Your task to perform on an android device: remove spam from my inbox in the gmail app Image 0: 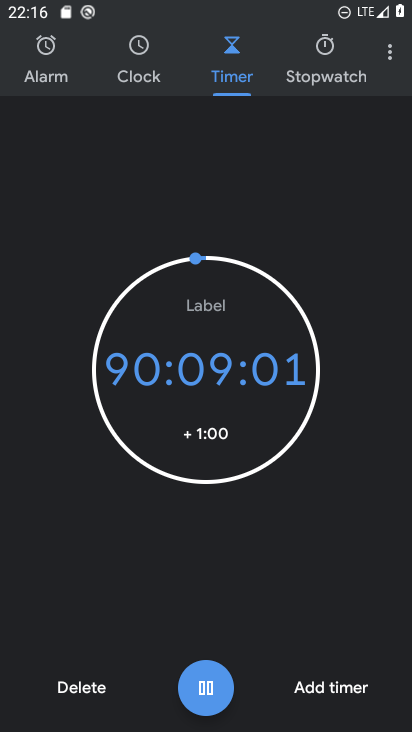
Step 0: press home button
Your task to perform on an android device: remove spam from my inbox in the gmail app Image 1: 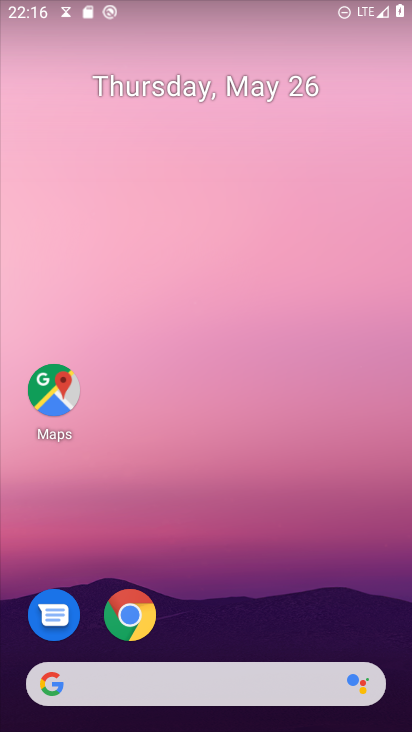
Step 1: drag from (222, 630) to (278, 198)
Your task to perform on an android device: remove spam from my inbox in the gmail app Image 2: 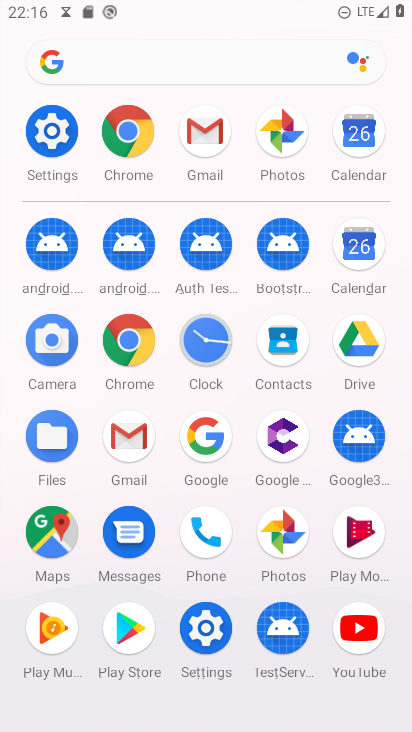
Step 2: click (138, 438)
Your task to perform on an android device: remove spam from my inbox in the gmail app Image 3: 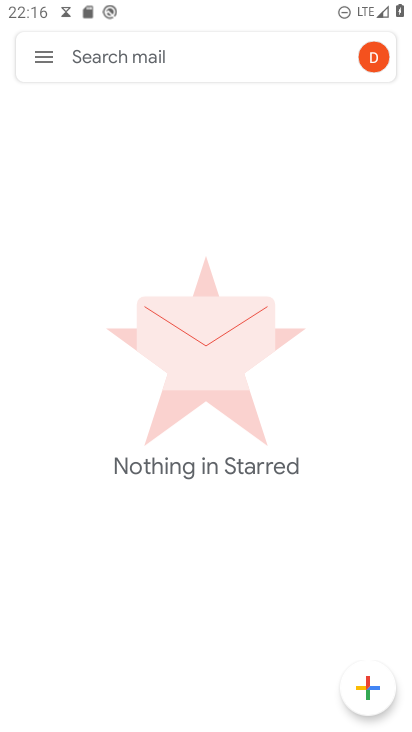
Step 3: click (36, 57)
Your task to perform on an android device: remove spam from my inbox in the gmail app Image 4: 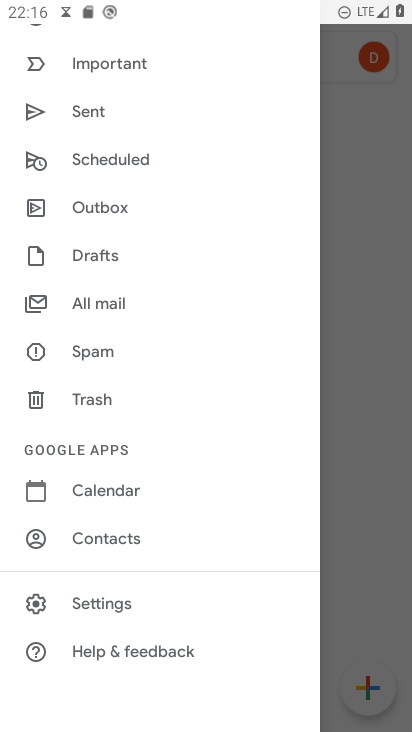
Step 4: click (112, 343)
Your task to perform on an android device: remove spam from my inbox in the gmail app Image 5: 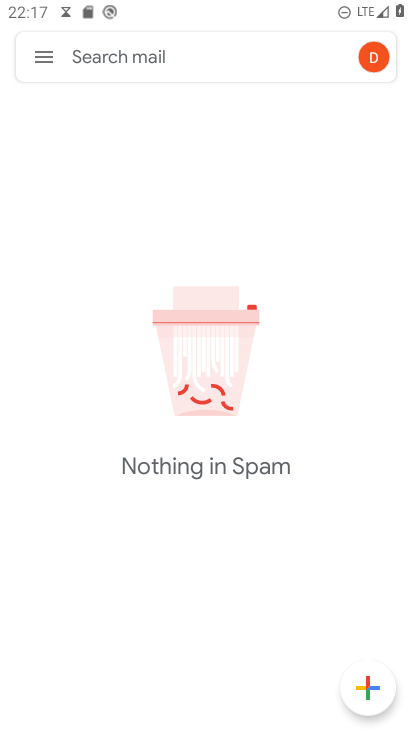
Step 5: task complete